Your task to perform on an android device: Go to Maps Image 0: 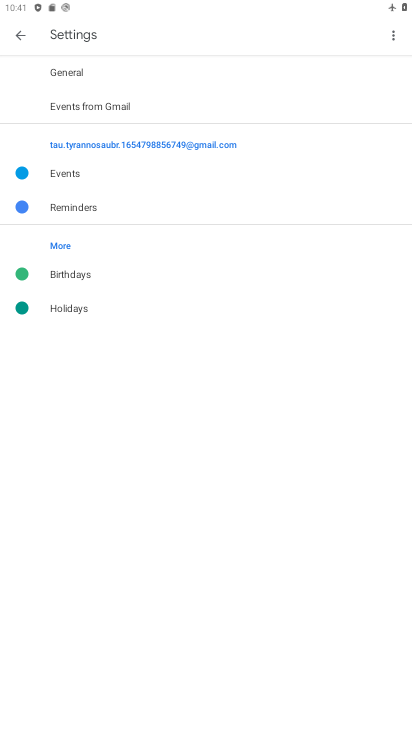
Step 0: press home button
Your task to perform on an android device: Go to Maps Image 1: 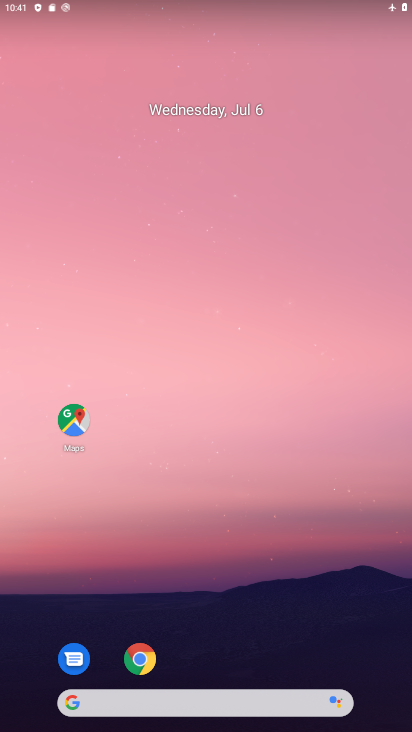
Step 1: drag from (227, 644) to (232, 604)
Your task to perform on an android device: Go to Maps Image 2: 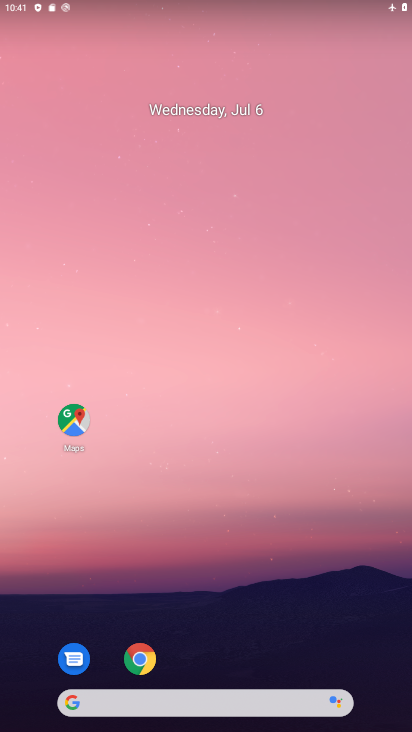
Step 2: click (77, 416)
Your task to perform on an android device: Go to Maps Image 3: 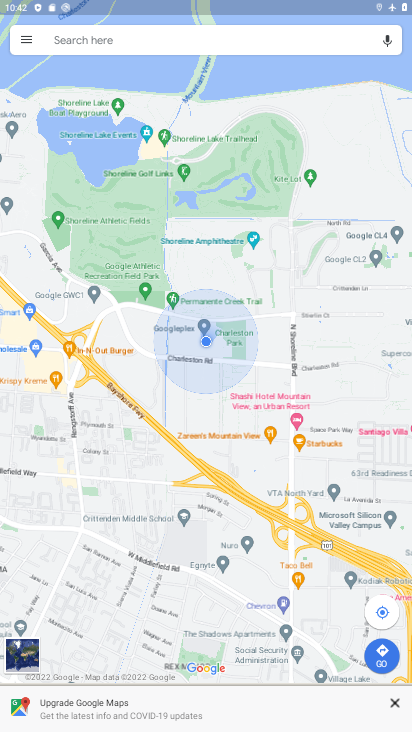
Step 3: task complete